Your task to perform on an android device: View the shopping cart on walmart.com. Add amazon basics triple a to the cart on walmart.com Image 0: 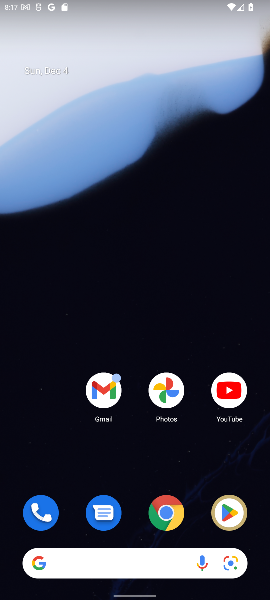
Step 0: click (172, 506)
Your task to perform on an android device: View the shopping cart on walmart.com. Add amazon basics triple a to the cart on walmart.com Image 1: 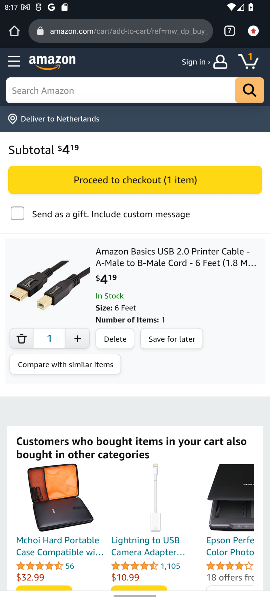
Step 1: click (232, 30)
Your task to perform on an android device: View the shopping cart on walmart.com. Add amazon basics triple a to the cart on walmart.com Image 2: 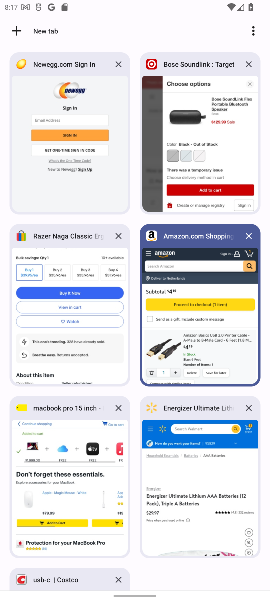
Step 2: click (167, 479)
Your task to perform on an android device: View the shopping cart on walmart.com. Add amazon basics triple a to the cart on walmart.com Image 3: 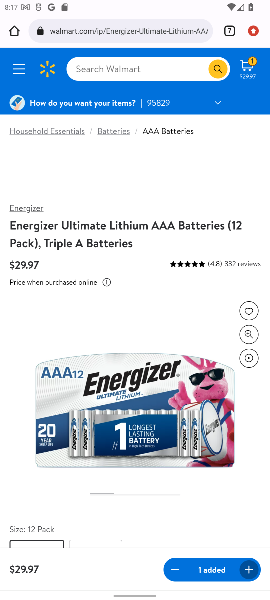
Step 3: click (148, 71)
Your task to perform on an android device: View the shopping cart on walmart.com. Add amazon basics triple a to the cart on walmart.com Image 4: 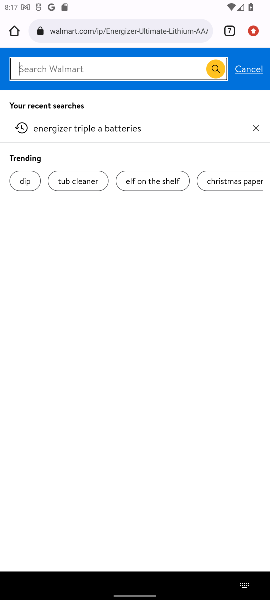
Step 4: type "amazon basics triple a"
Your task to perform on an android device: View the shopping cart on walmart.com. Add amazon basics triple a to the cart on walmart.com Image 5: 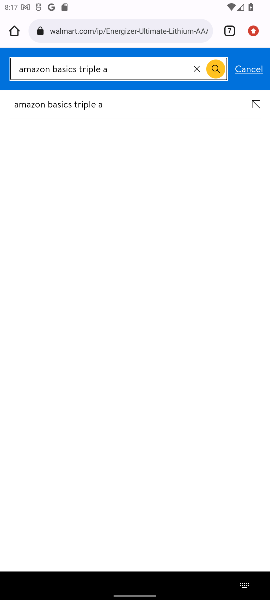
Step 5: click (28, 103)
Your task to perform on an android device: View the shopping cart on walmart.com. Add amazon basics triple a to the cart on walmart.com Image 6: 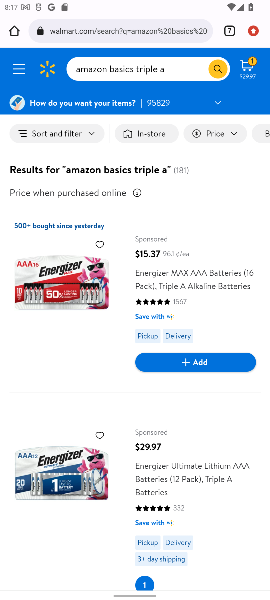
Step 6: task complete